Your task to perform on an android device: empty trash in google photos Image 0: 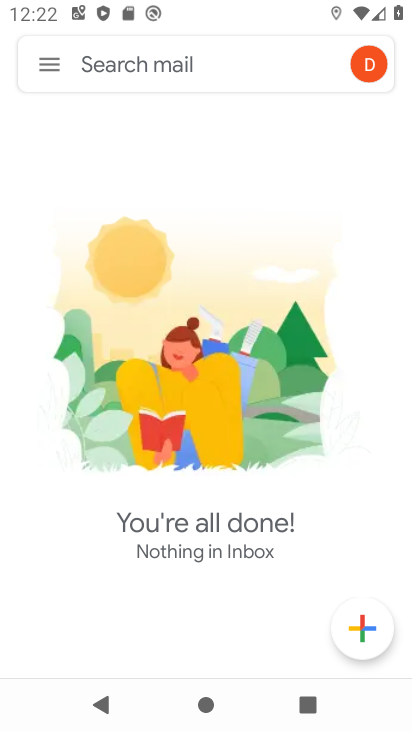
Step 0: press home button
Your task to perform on an android device: empty trash in google photos Image 1: 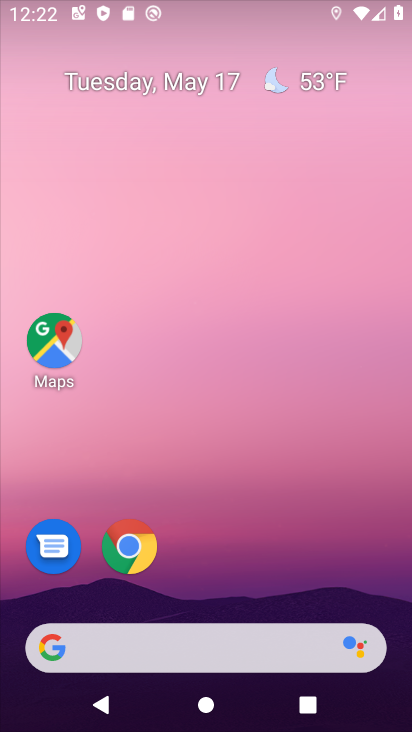
Step 1: drag from (226, 559) to (241, 111)
Your task to perform on an android device: empty trash in google photos Image 2: 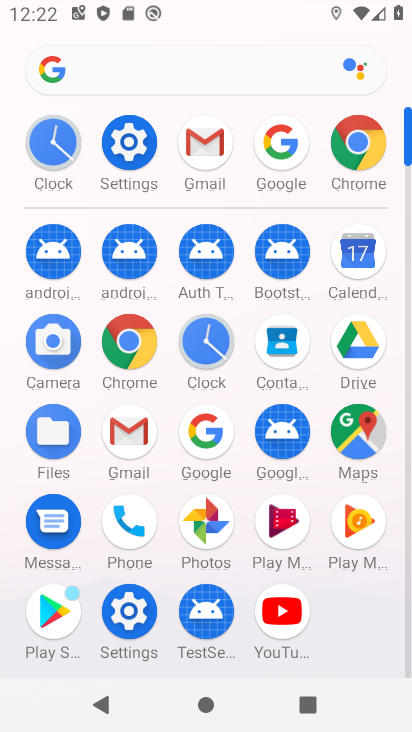
Step 2: click (210, 521)
Your task to perform on an android device: empty trash in google photos Image 3: 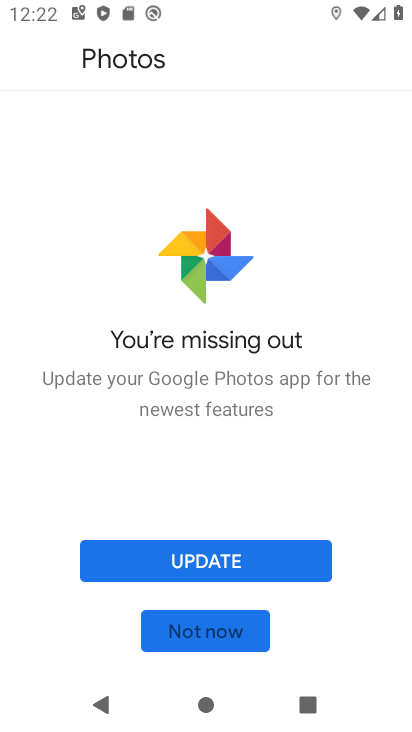
Step 3: click (213, 569)
Your task to perform on an android device: empty trash in google photos Image 4: 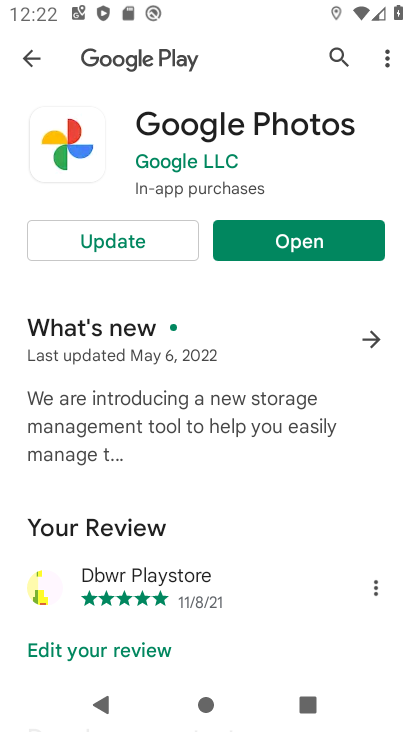
Step 4: click (135, 238)
Your task to perform on an android device: empty trash in google photos Image 5: 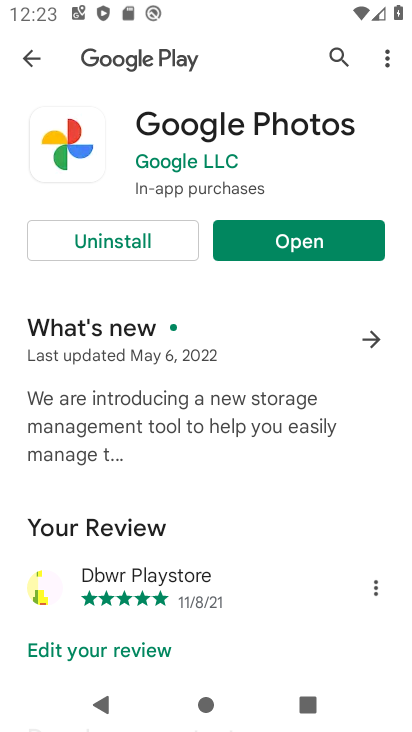
Step 5: click (282, 243)
Your task to perform on an android device: empty trash in google photos Image 6: 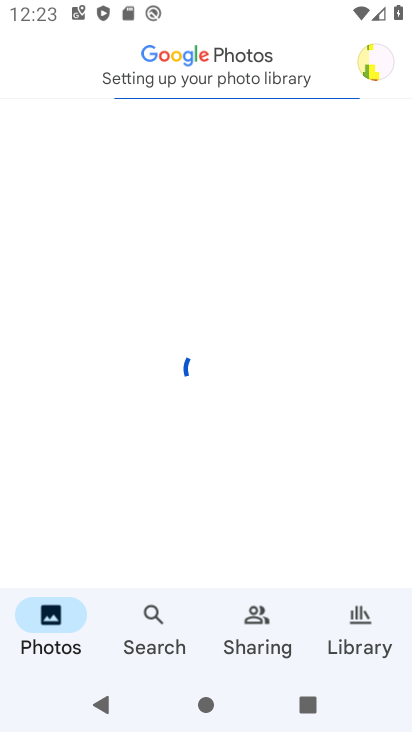
Step 6: task complete